Your task to perform on an android device: turn off priority inbox in the gmail app Image 0: 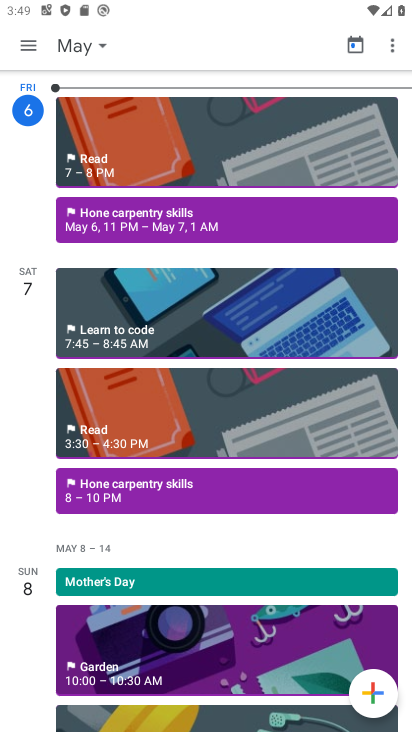
Step 0: press home button
Your task to perform on an android device: turn off priority inbox in the gmail app Image 1: 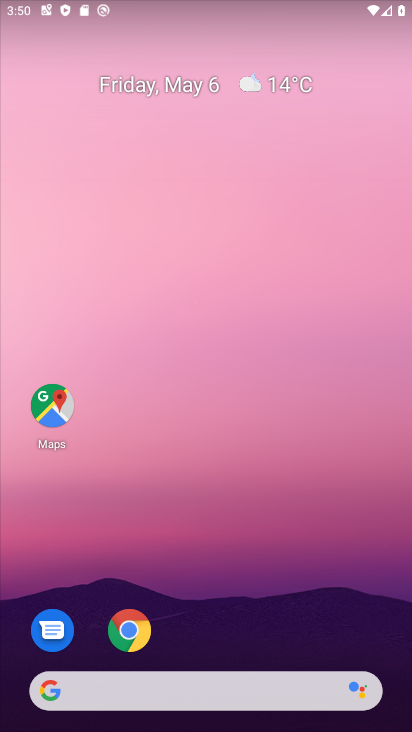
Step 1: drag from (214, 634) to (216, 130)
Your task to perform on an android device: turn off priority inbox in the gmail app Image 2: 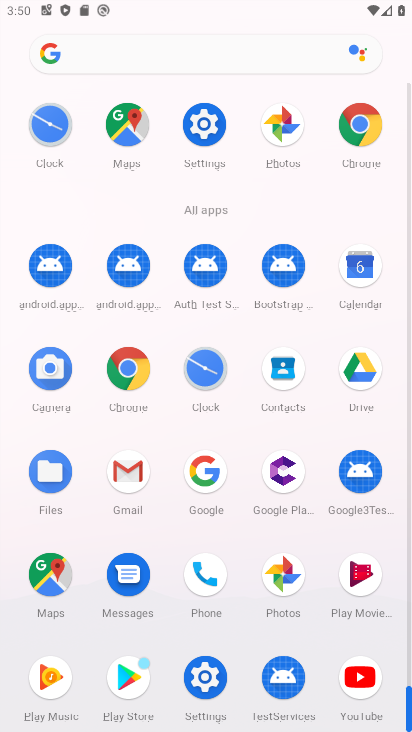
Step 2: click (131, 480)
Your task to perform on an android device: turn off priority inbox in the gmail app Image 3: 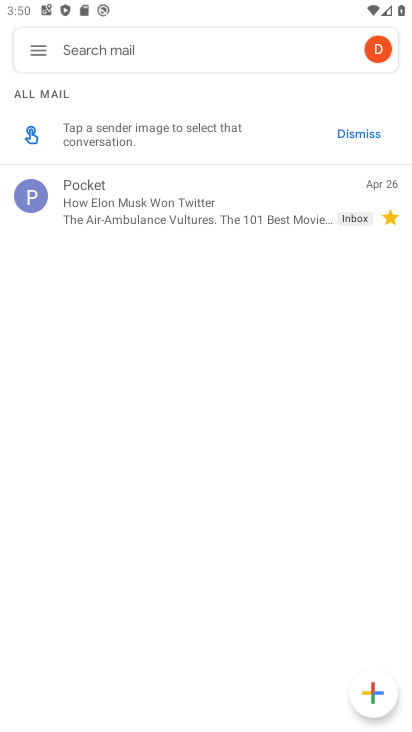
Step 3: click (41, 43)
Your task to perform on an android device: turn off priority inbox in the gmail app Image 4: 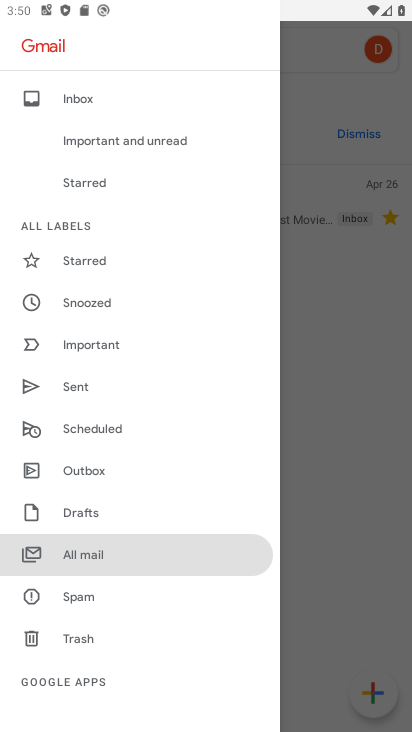
Step 4: drag from (38, 708) to (126, 206)
Your task to perform on an android device: turn off priority inbox in the gmail app Image 5: 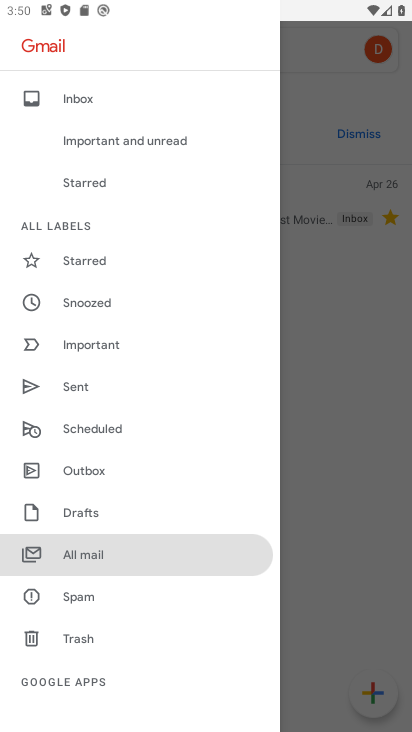
Step 5: drag from (42, 664) to (393, 324)
Your task to perform on an android device: turn off priority inbox in the gmail app Image 6: 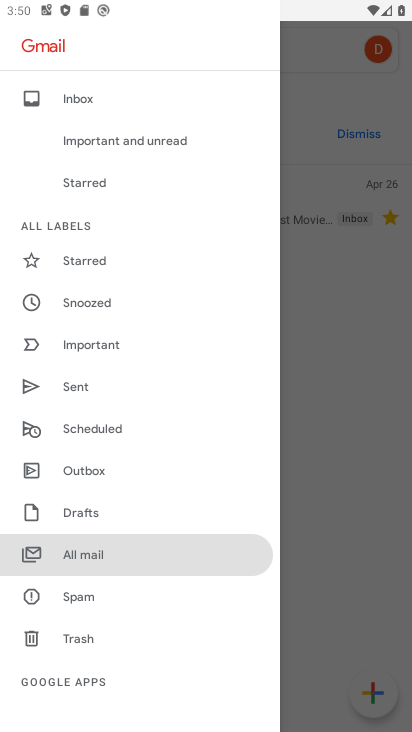
Step 6: drag from (59, 647) to (153, 235)
Your task to perform on an android device: turn off priority inbox in the gmail app Image 7: 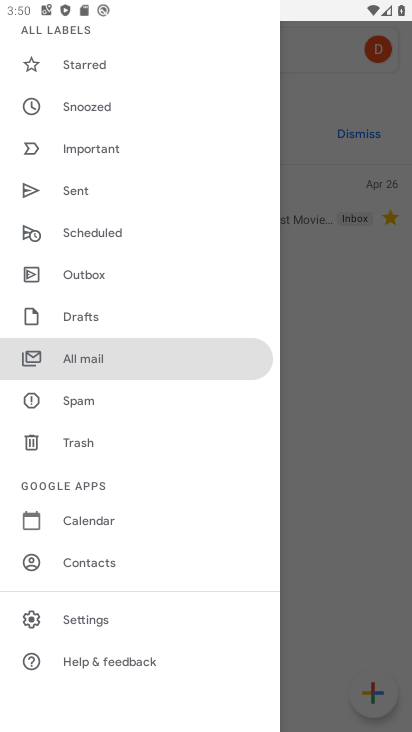
Step 7: click (66, 620)
Your task to perform on an android device: turn off priority inbox in the gmail app Image 8: 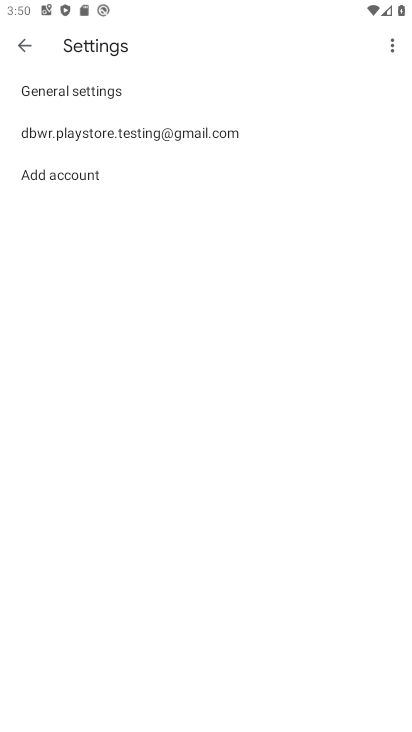
Step 8: click (223, 133)
Your task to perform on an android device: turn off priority inbox in the gmail app Image 9: 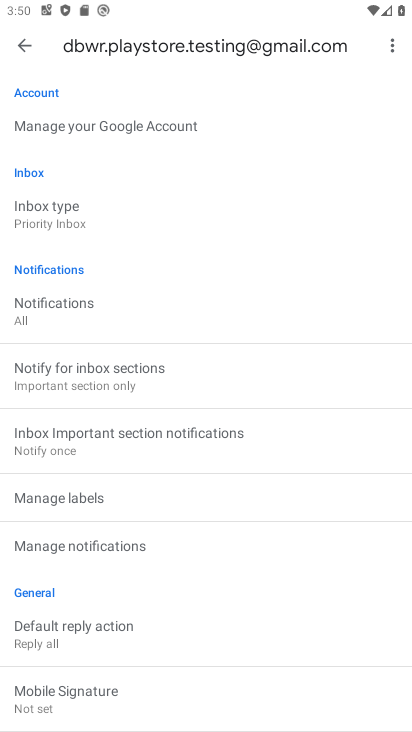
Step 9: click (115, 206)
Your task to perform on an android device: turn off priority inbox in the gmail app Image 10: 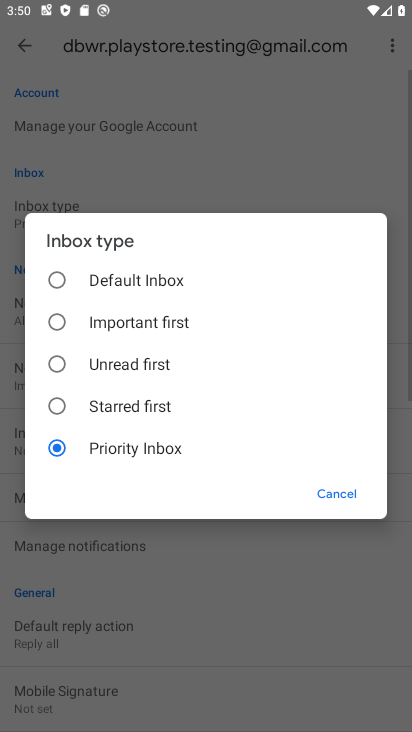
Step 10: click (224, 320)
Your task to perform on an android device: turn off priority inbox in the gmail app Image 11: 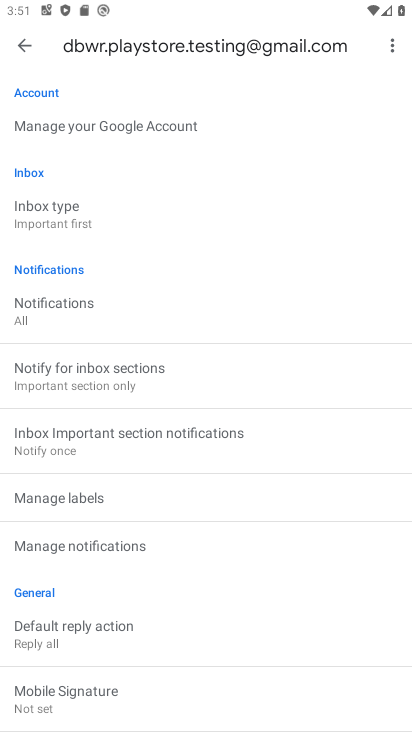
Step 11: task complete